Your task to perform on an android device: open a bookmark in the chrome app Image 0: 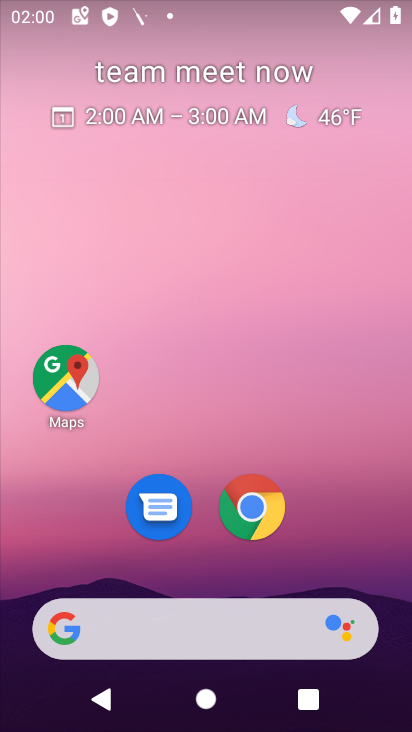
Step 0: drag from (245, 579) to (307, 211)
Your task to perform on an android device: open a bookmark in the chrome app Image 1: 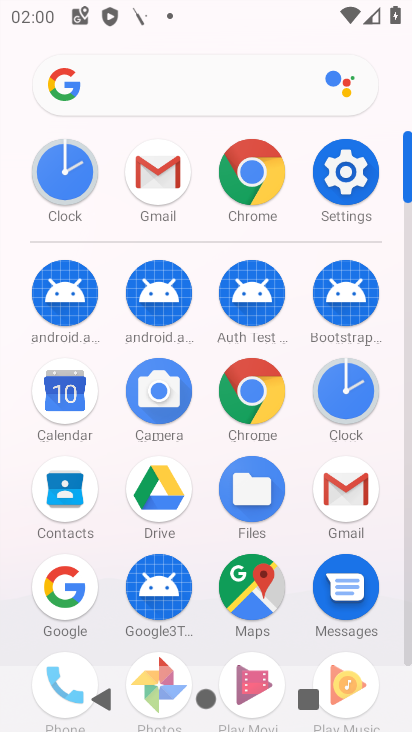
Step 1: click (249, 176)
Your task to perform on an android device: open a bookmark in the chrome app Image 2: 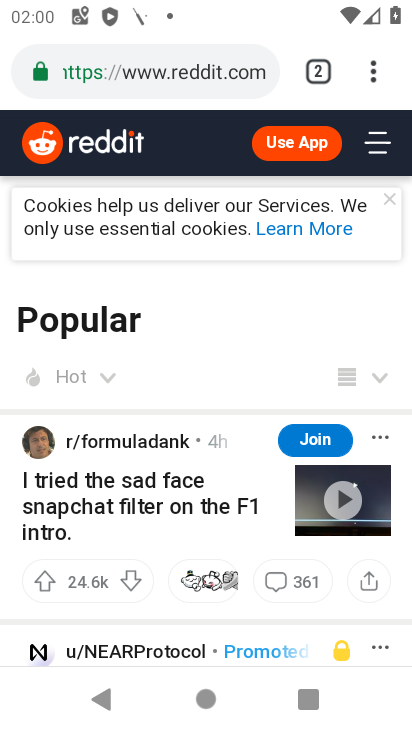
Step 2: click (372, 82)
Your task to perform on an android device: open a bookmark in the chrome app Image 3: 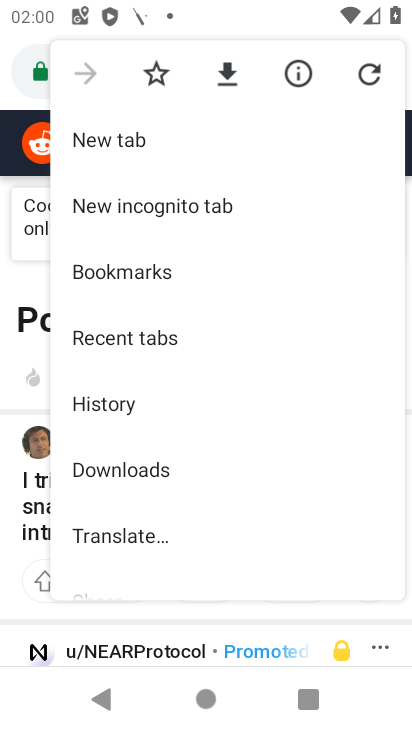
Step 3: click (151, 269)
Your task to perform on an android device: open a bookmark in the chrome app Image 4: 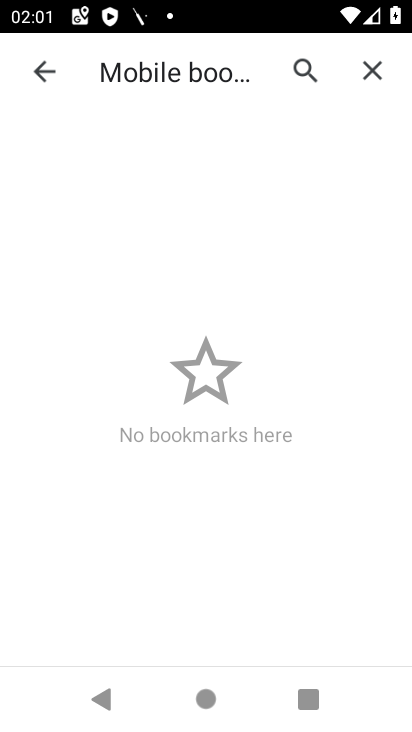
Step 4: task complete